Your task to perform on an android device: show emergency info Image 0: 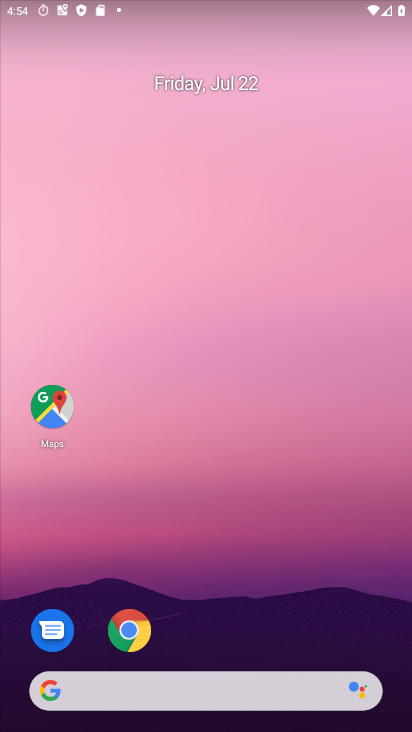
Step 0: drag from (205, 690) to (287, 131)
Your task to perform on an android device: show emergency info Image 1: 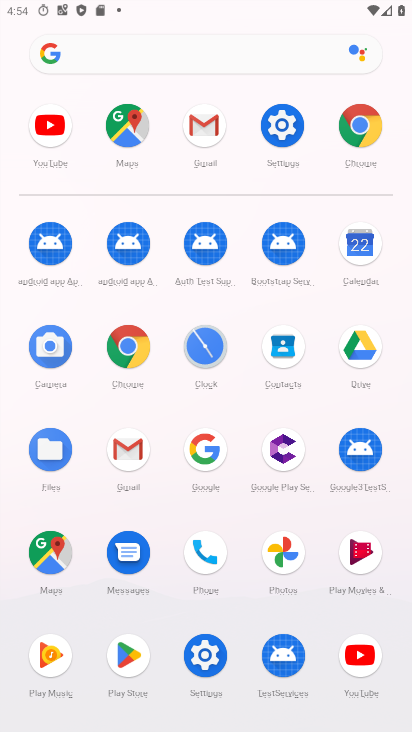
Step 1: click (205, 665)
Your task to perform on an android device: show emergency info Image 2: 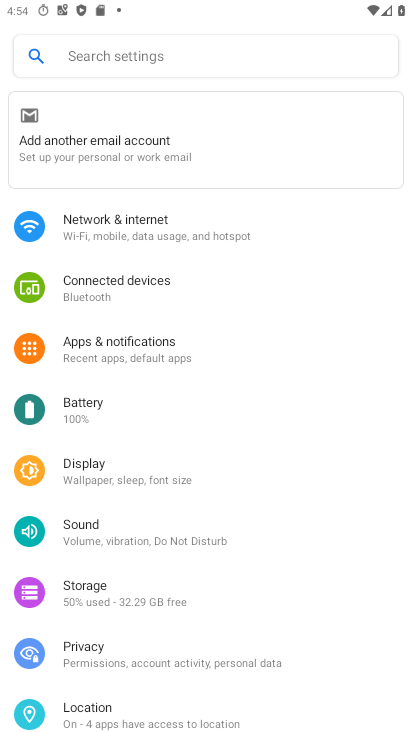
Step 2: drag from (136, 675) to (132, 248)
Your task to perform on an android device: show emergency info Image 3: 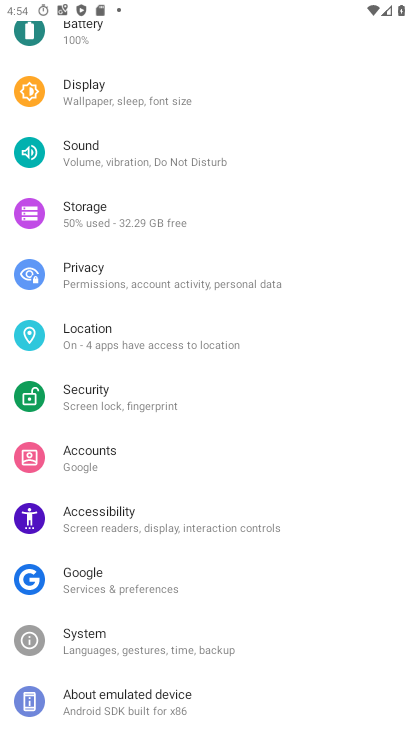
Step 3: click (135, 707)
Your task to perform on an android device: show emergency info Image 4: 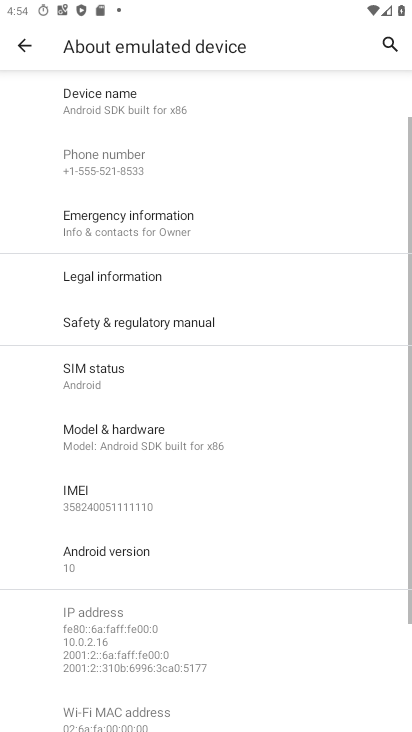
Step 4: click (156, 236)
Your task to perform on an android device: show emergency info Image 5: 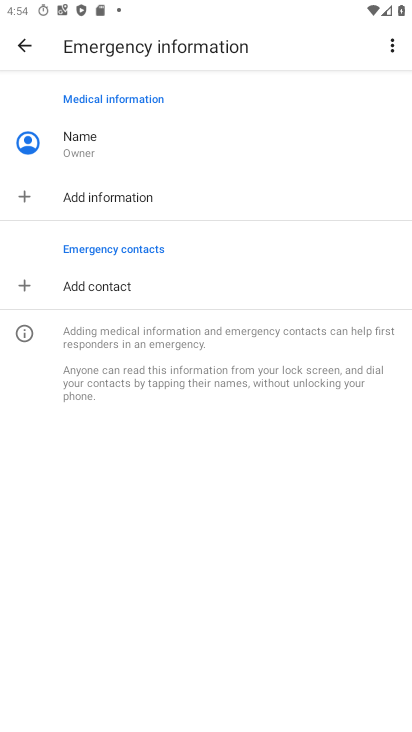
Step 5: task complete